Your task to perform on an android device: delete location history Image 0: 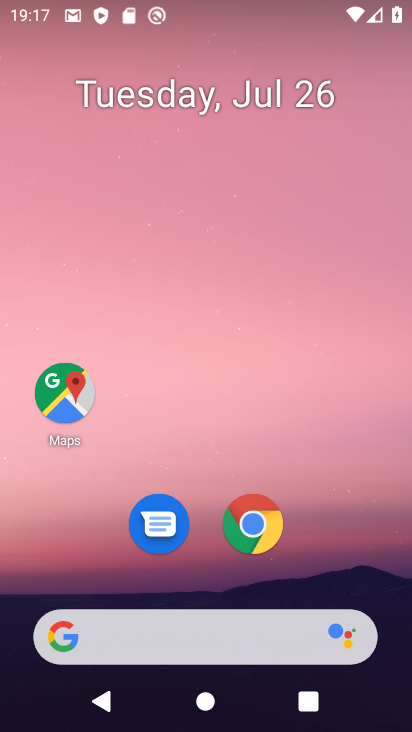
Step 0: press home button
Your task to perform on an android device: delete location history Image 1: 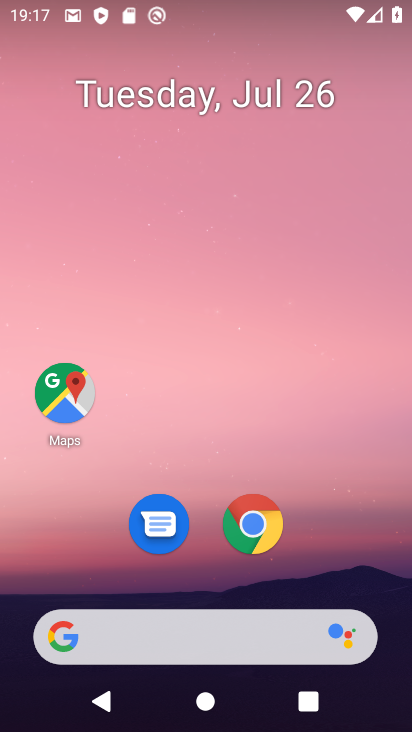
Step 1: click (65, 402)
Your task to perform on an android device: delete location history Image 2: 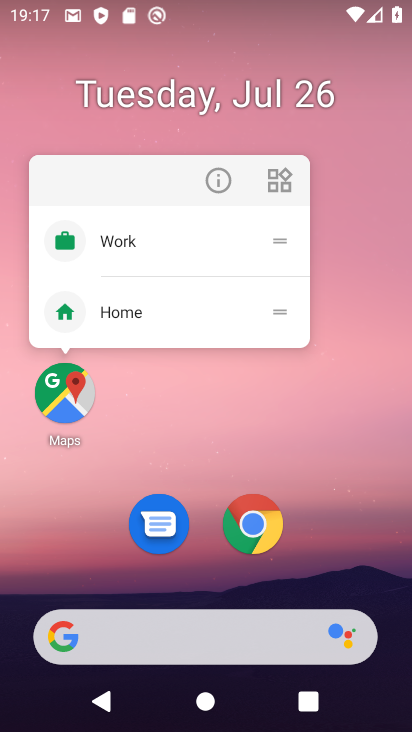
Step 2: click (53, 397)
Your task to perform on an android device: delete location history Image 3: 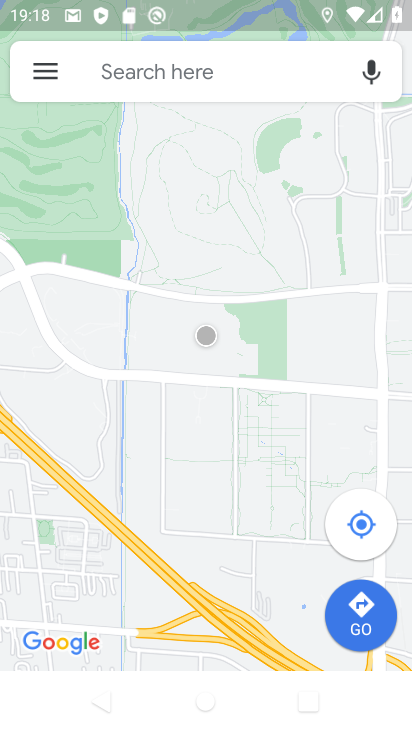
Step 3: click (51, 70)
Your task to perform on an android device: delete location history Image 4: 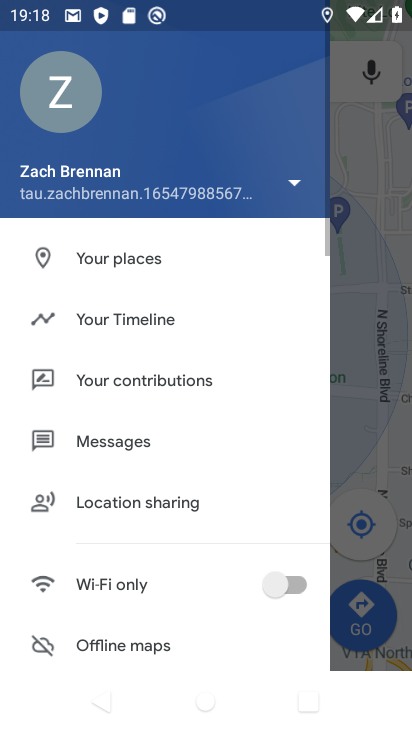
Step 4: click (135, 314)
Your task to perform on an android device: delete location history Image 5: 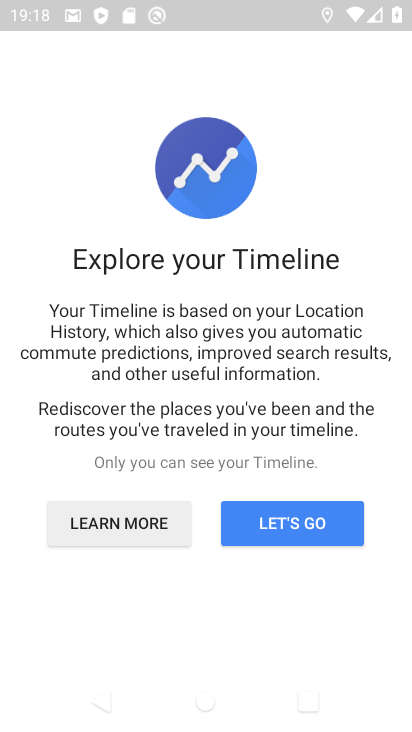
Step 5: click (309, 521)
Your task to perform on an android device: delete location history Image 6: 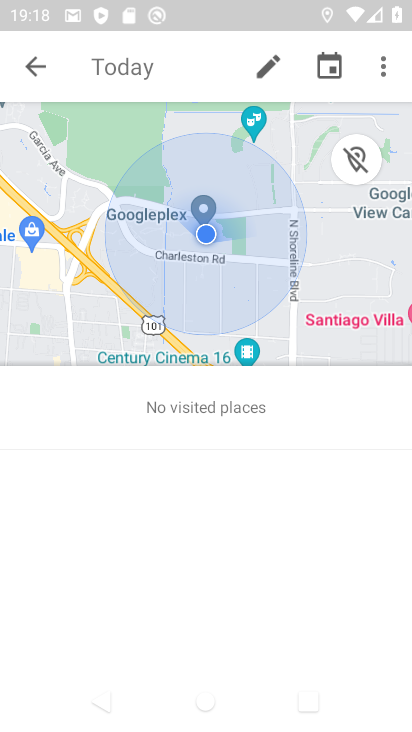
Step 6: click (382, 69)
Your task to perform on an android device: delete location history Image 7: 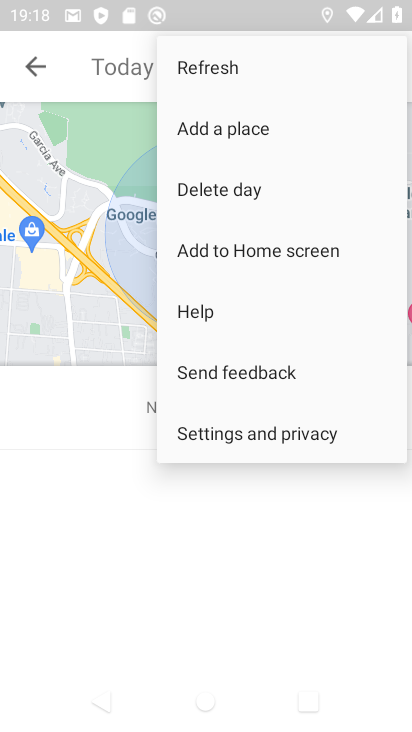
Step 7: click (214, 434)
Your task to perform on an android device: delete location history Image 8: 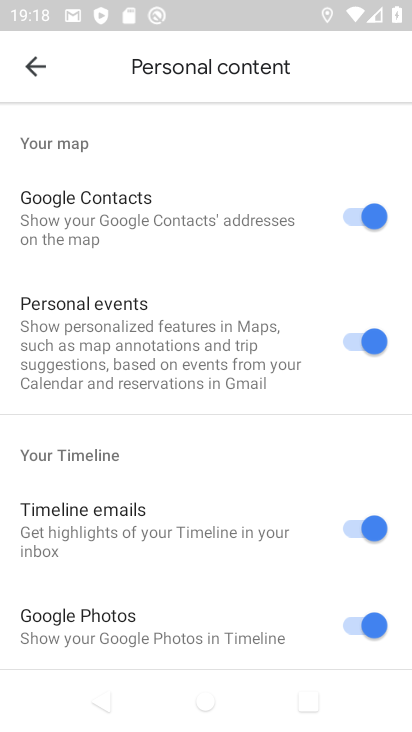
Step 8: drag from (208, 586) to (406, 104)
Your task to perform on an android device: delete location history Image 9: 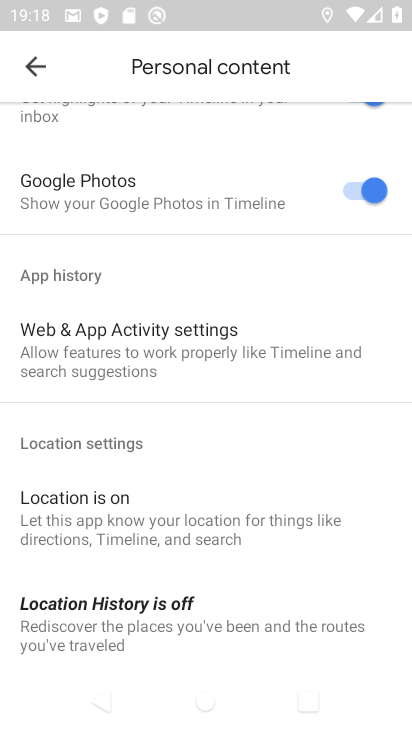
Step 9: drag from (221, 587) to (409, 146)
Your task to perform on an android device: delete location history Image 10: 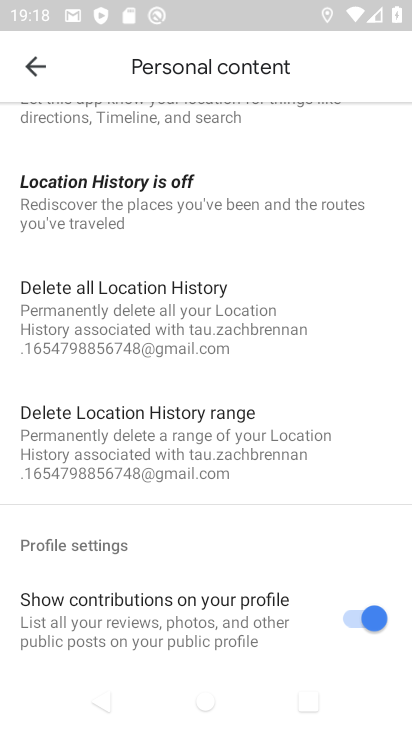
Step 10: click (142, 288)
Your task to perform on an android device: delete location history Image 11: 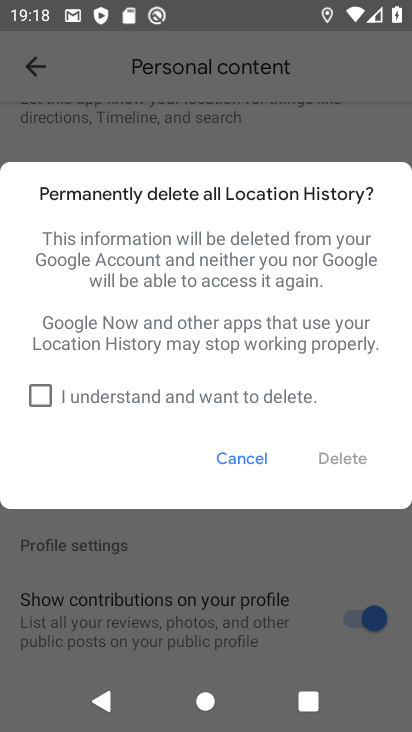
Step 11: click (45, 390)
Your task to perform on an android device: delete location history Image 12: 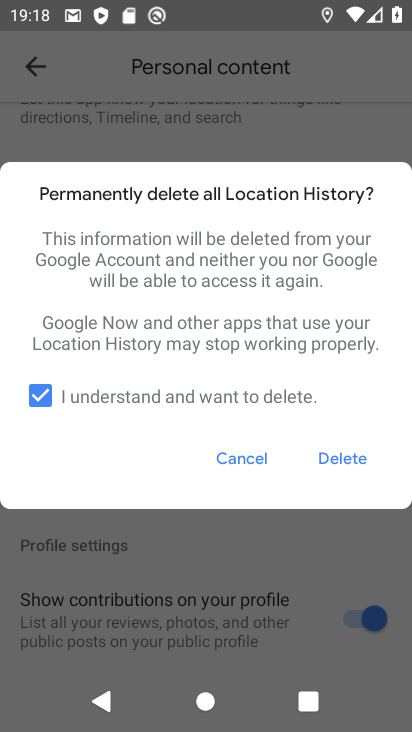
Step 12: click (348, 458)
Your task to perform on an android device: delete location history Image 13: 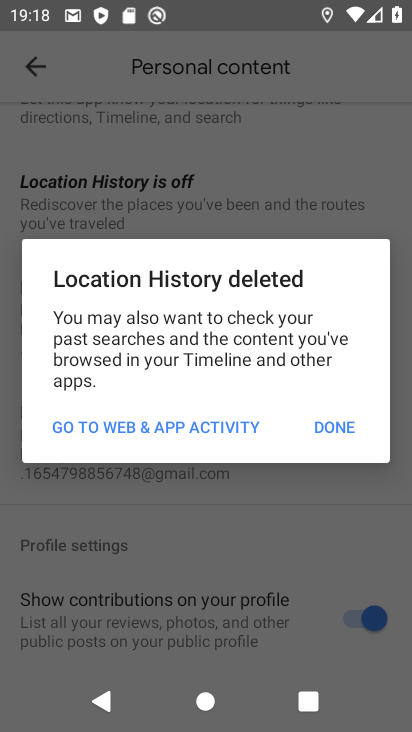
Step 13: click (345, 422)
Your task to perform on an android device: delete location history Image 14: 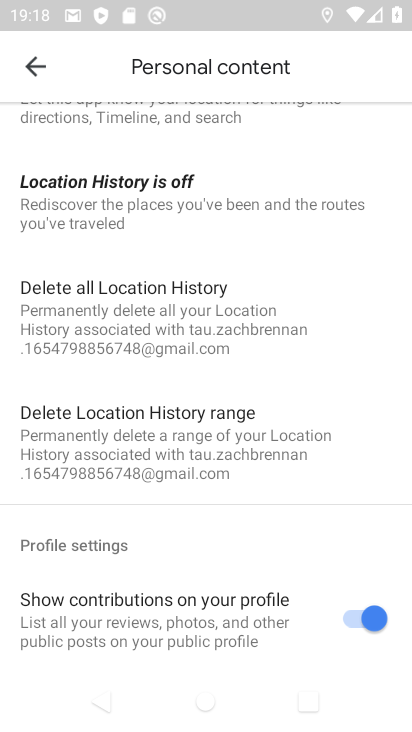
Step 14: task complete